Your task to perform on an android device: turn on improve location accuracy Image 0: 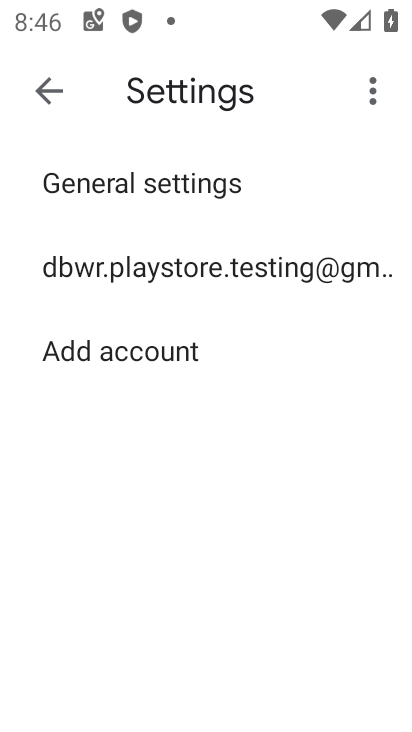
Step 0: press home button
Your task to perform on an android device: turn on improve location accuracy Image 1: 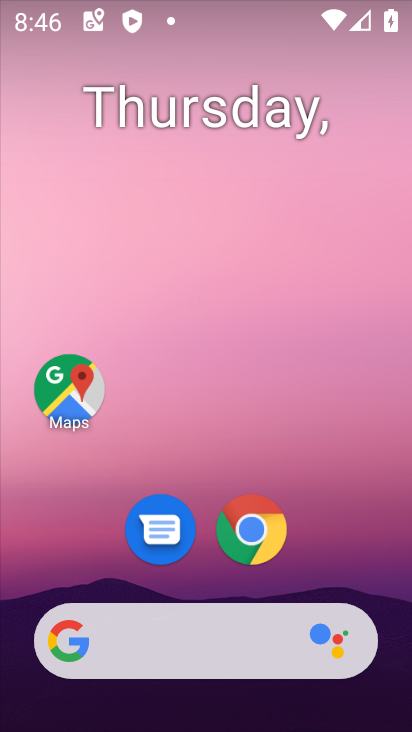
Step 1: drag from (204, 724) to (209, 676)
Your task to perform on an android device: turn on improve location accuracy Image 2: 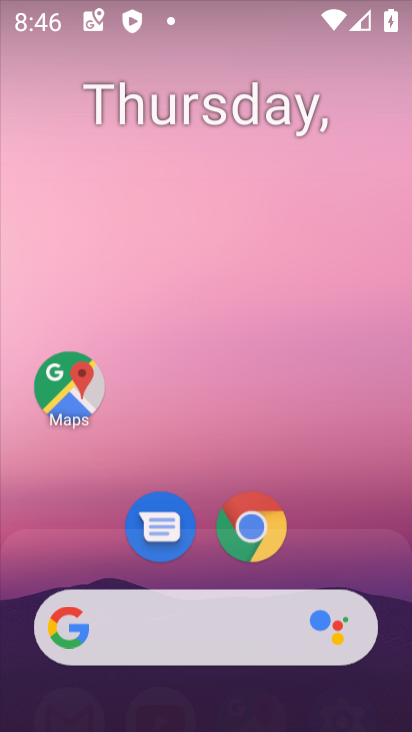
Step 2: click (221, 30)
Your task to perform on an android device: turn on improve location accuracy Image 3: 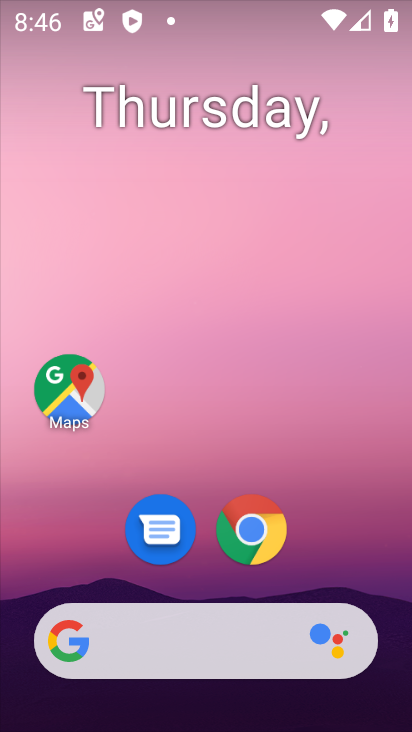
Step 3: drag from (231, 726) to (235, 11)
Your task to perform on an android device: turn on improve location accuracy Image 4: 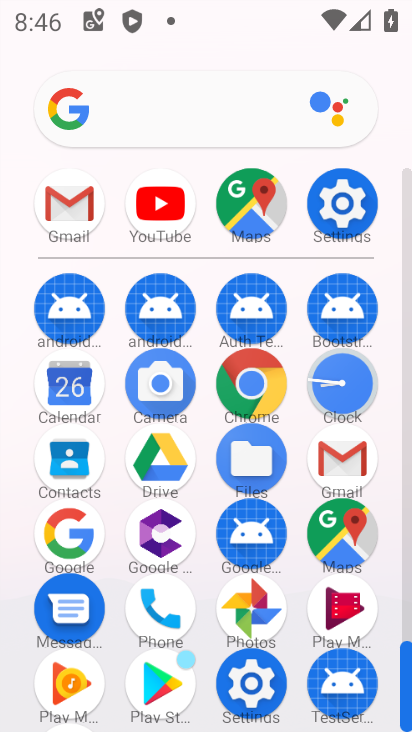
Step 4: click (337, 214)
Your task to perform on an android device: turn on improve location accuracy Image 5: 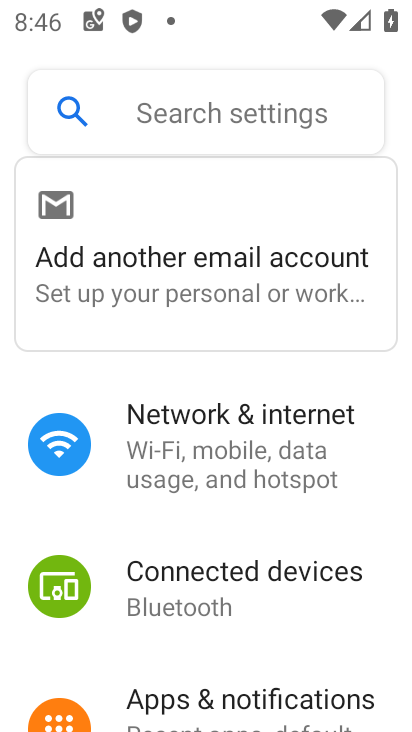
Step 5: drag from (331, 681) to (331, 267)
Your task to perform on an android device: turn on improve location accuracy Image 6: 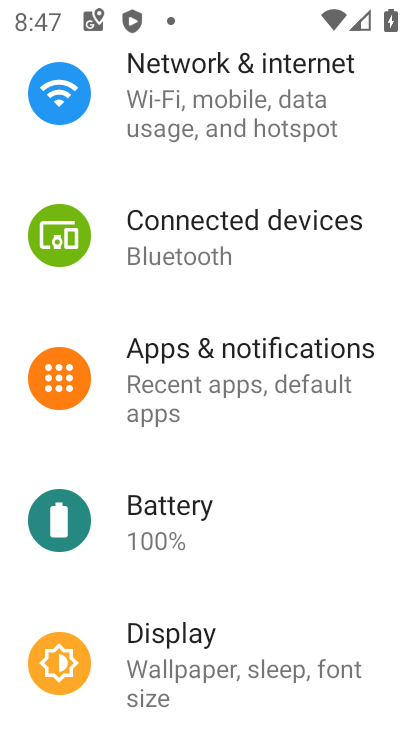
Step 6: drag from (236, 698) to (240, 137)
Your task to perform on an android device: turn on improve location accuracy Image 7: 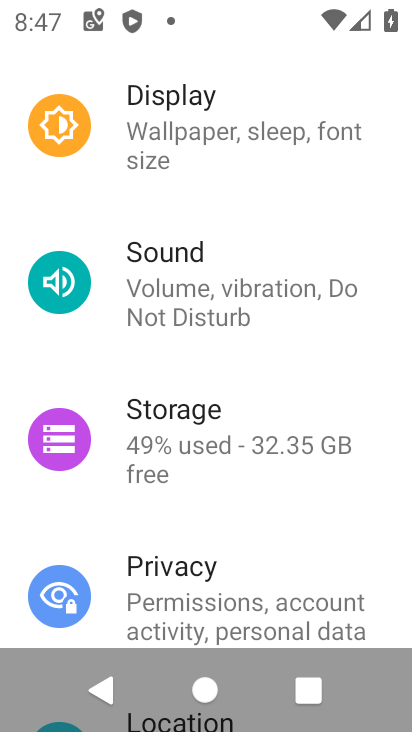
Step 7: drag from (183, 638) to (197, 154)
Your task to perform on an android device: turn on improve location accuracy Image 8: 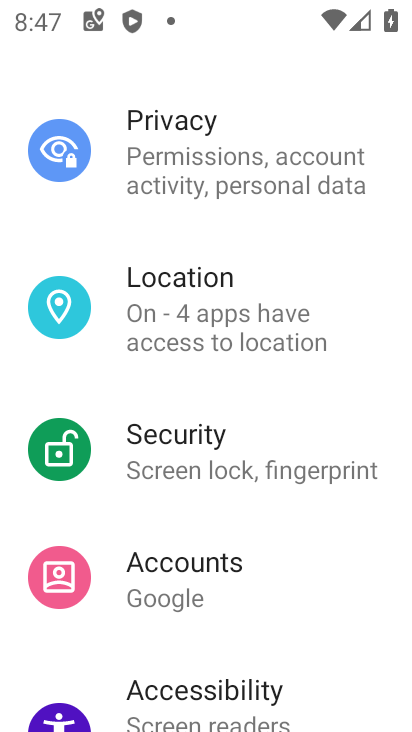
Step 8: click (177, 295)
Your task to perform on an android device: turn on improve location accuracy Image 9: 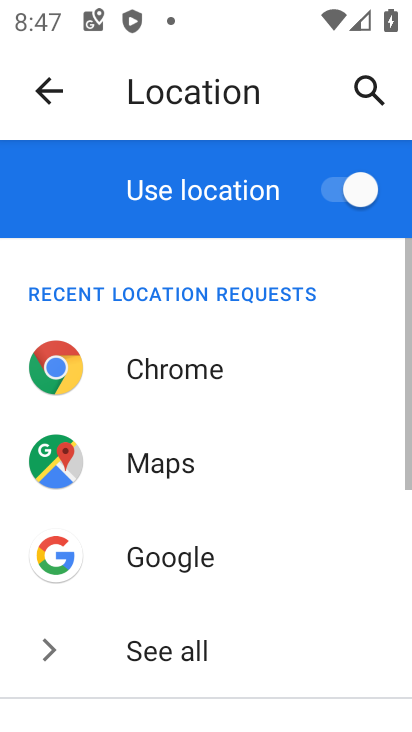
Step 9: drag from (189, 705) to (195, 190)
Your task to perform on an android device: turn on improve location accuracy Image 10: 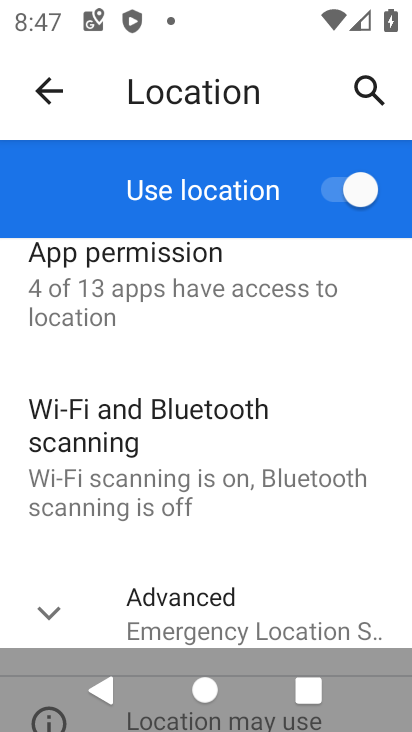
Step 10: click (139, 602)
Your task to perform on an android device: turn on improve location accuracy Image 11: 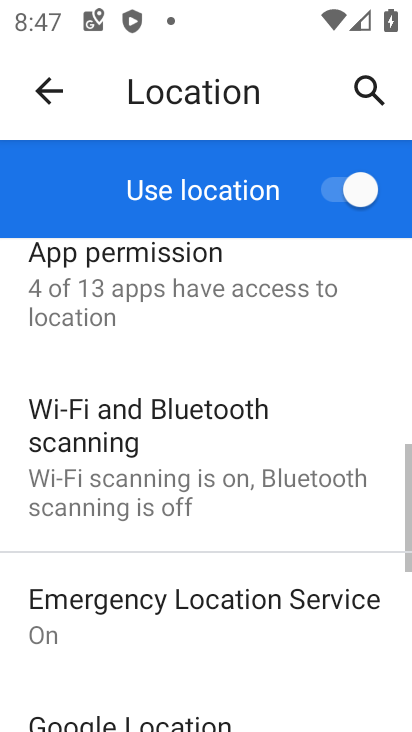
Step 11: drag from (202, 690) to (215, 187)
Your task to perform on an android device: turn on improve location accuracy Image 12: 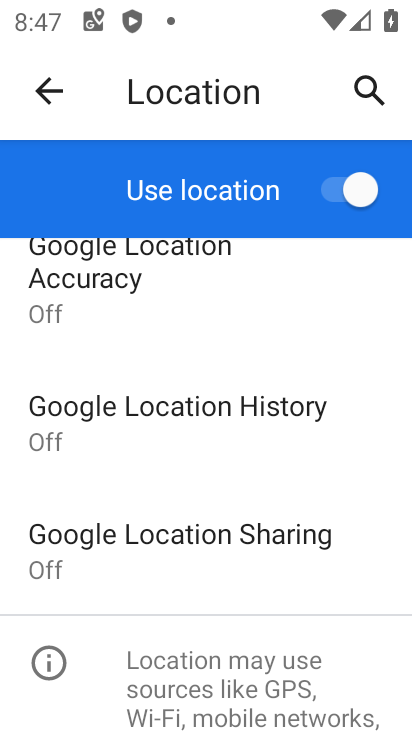
Step 12: click (84, 276)
Your task to perform on an android device: turn on improve location accuracy Image 13: 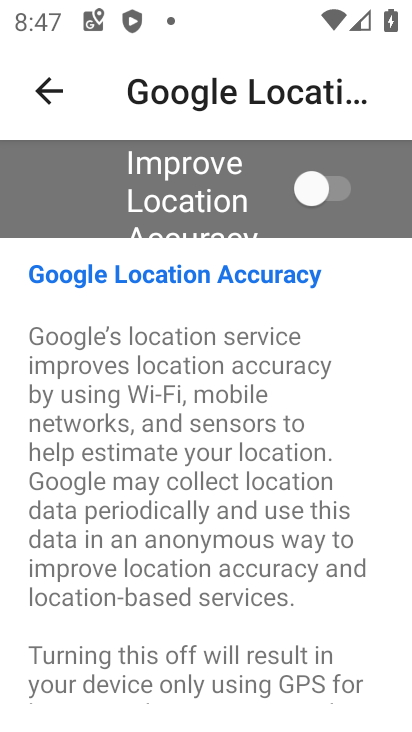
Step 13: click (340, 197)
Your task to perform on an android device: turn on improve location accuracy Image 14: 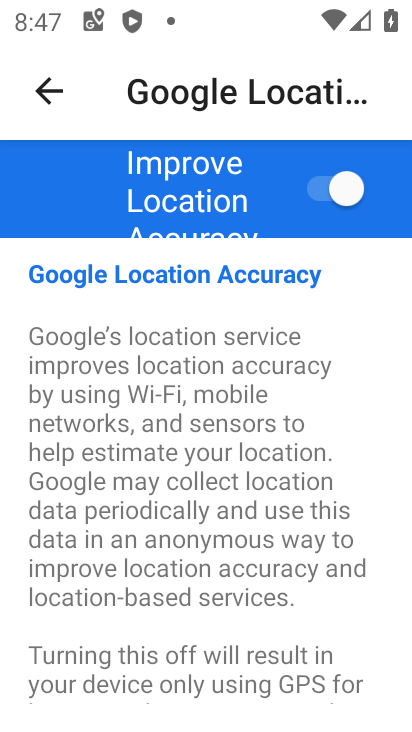
Step 14: task complete